Your task to perform on an android device: open the mobile data screen to see how much data has been used Image 0: 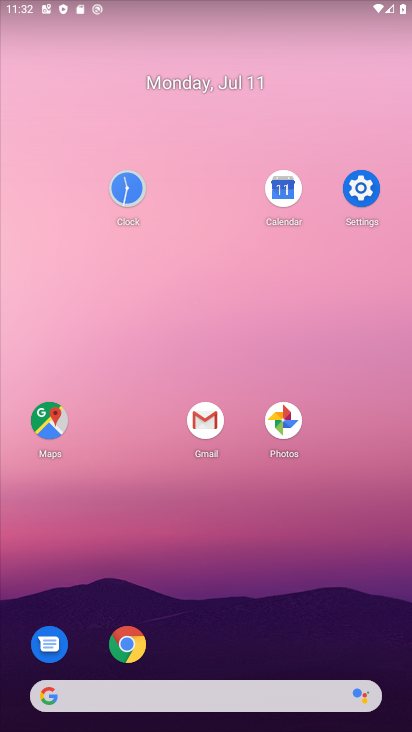
Step 0: click (365, 180)
Your task to perform on an android device: open the mobile data screen to see how much data has been used Image 1: 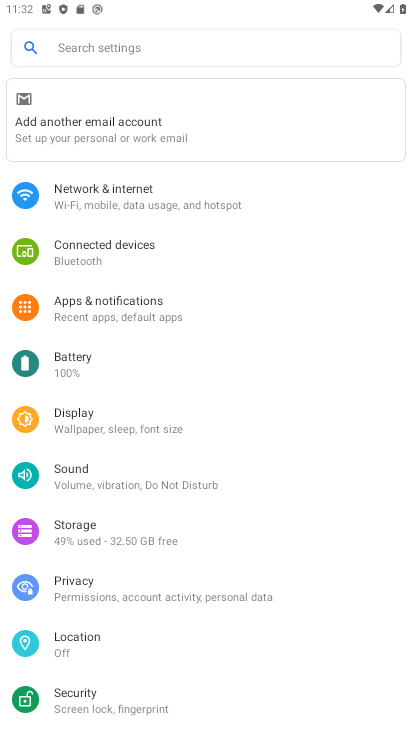
Step 1: click (249, 209)
Your task to perform on an android device: open the mobile data screen to see how much data has been used Image 2: 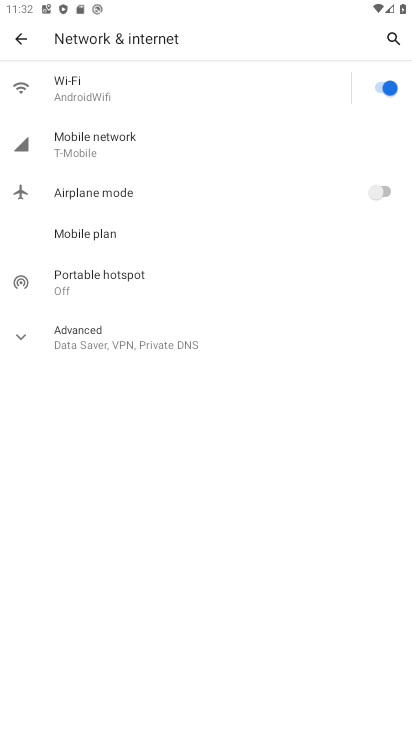
Step 2: click (105, 159)
Your task to perform on an android device: open the mobile data screen to see how much data has been used Image 3: 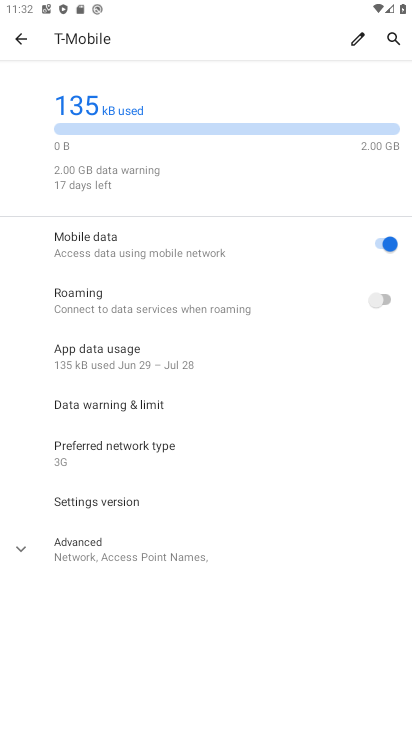
Step 3: task complete